Your task to perform on an android device: toggle improve location accuracy Image 0: 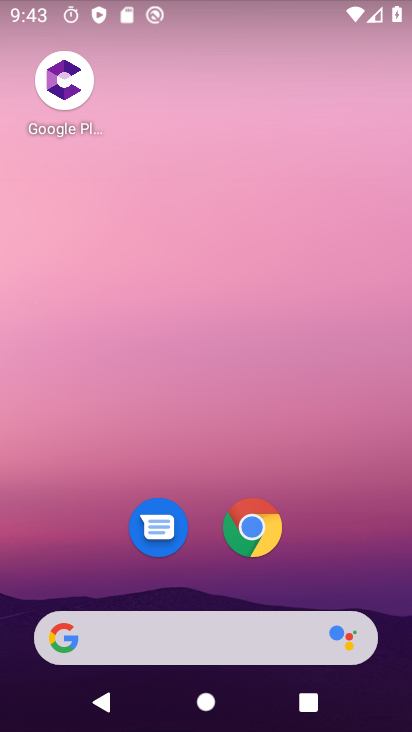
Step 0: drag from (300, 553) to (315, 115)
Your task to perform on an android device: toggle improve location accuracy Image 1: 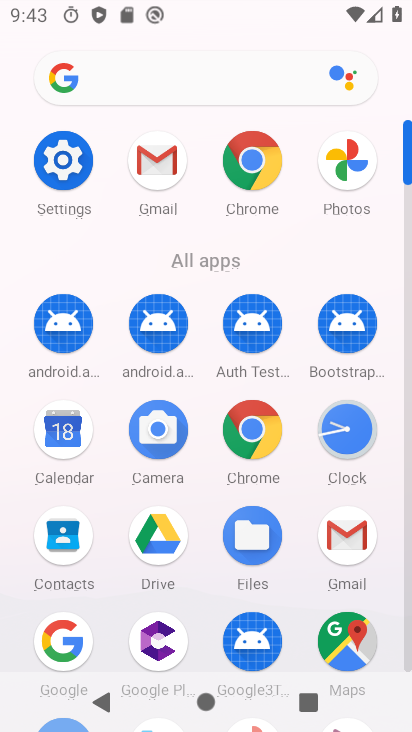
Step 1: click (52, 150)
Your task to perform on an android device: toggle improve location accuracy Image 2: 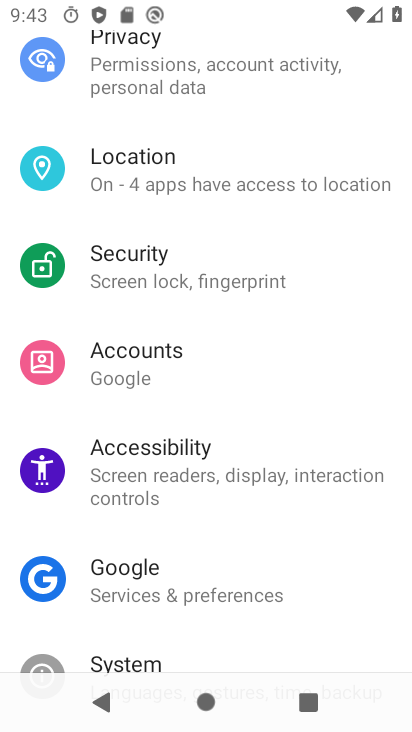
Step 2: click (208, 174)
Your task to perform on an android device: toggle improve location accuracy Image 3: 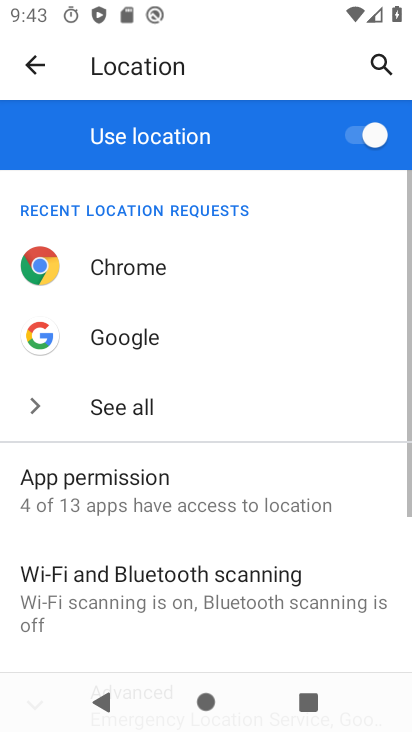
Step 3: drag from (254, 500) to (349, 181)
Your task to perform on an android device: toggle improve location accuracy Image 4: 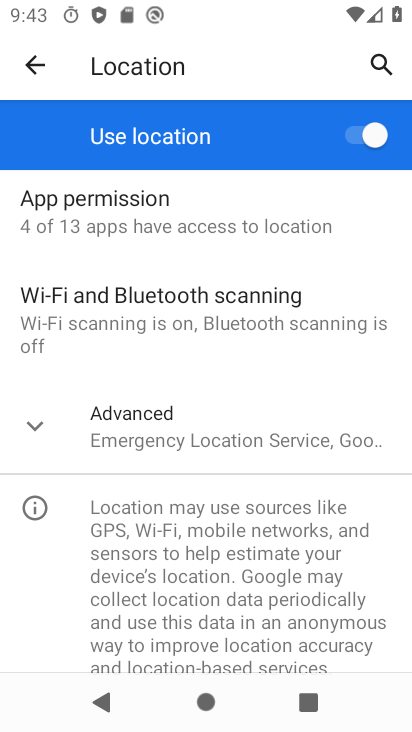
Step 4: click (199, 314)
Your task to perform on an android device: toggle improve location accuracy Image 5: 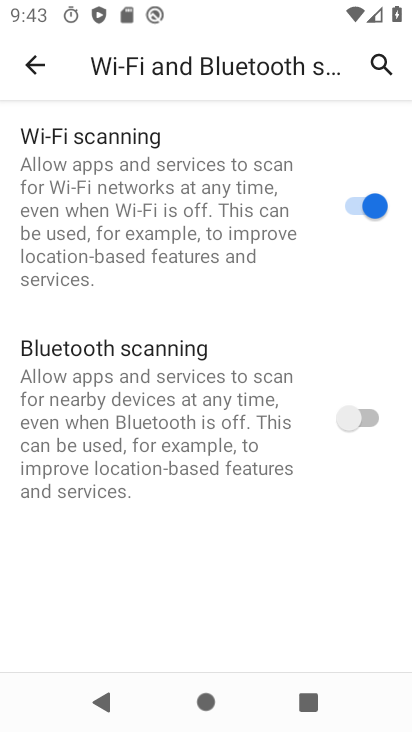
Step 5: click (349, 414)
Your task to perform on an android device: toggle improve location accuracy Image 6: 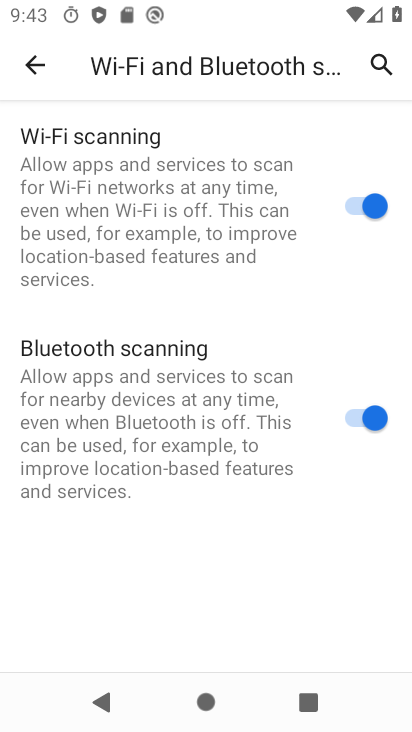
Step 6: task complete